Your task to perform on an android device: refresh tabs in the chrome app Image 0: 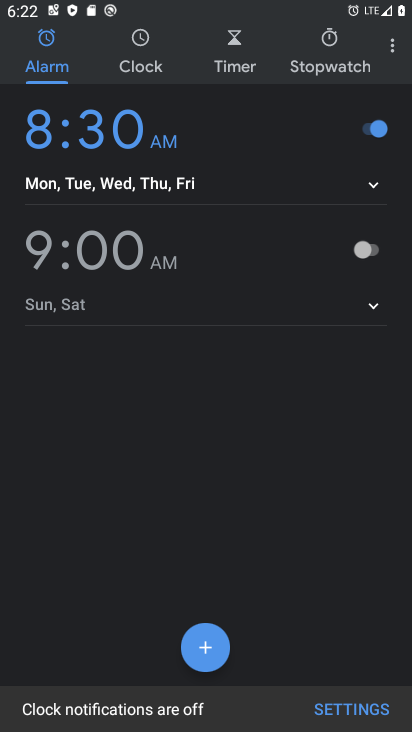
Step 0: press home button
Your task to perform on an android device: refresh tabs in the chrome app Image 1: 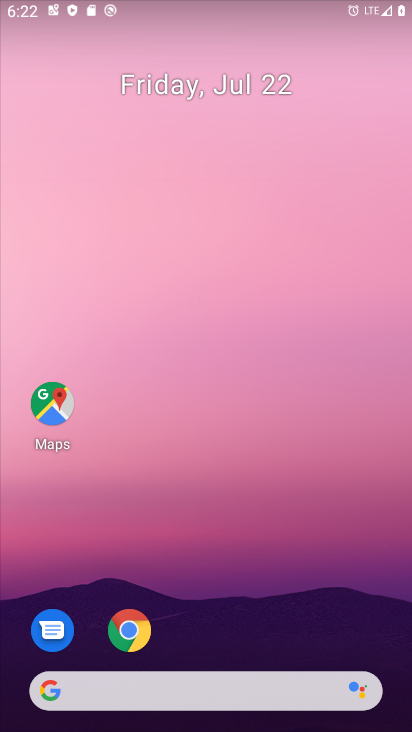
Step 1: drag from (268, 628) to (244, 0)
Your task to perform on an android device: refresh tabs in the chrome app Image 2: 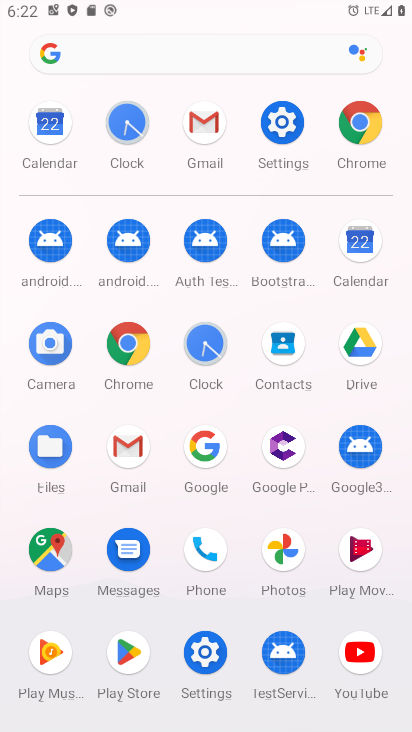
Step 2: click (134, 353)
Your task to perform on an android device: refresh tabs in the chrome app Image 3: 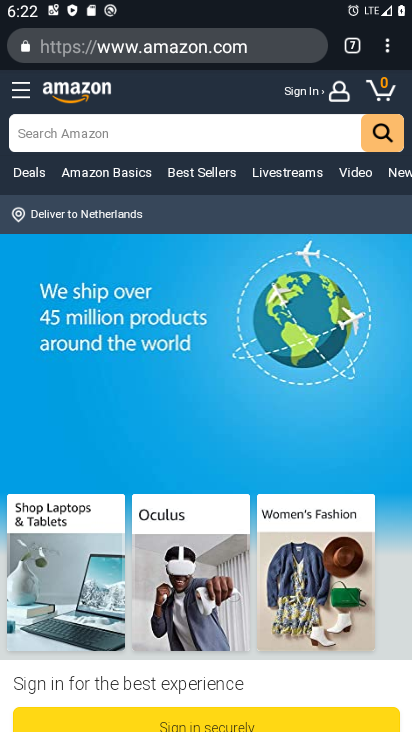
Step 3: click (386, 47)
Your task to perform on an android device: refresh tabs in the chrome app Image 4: 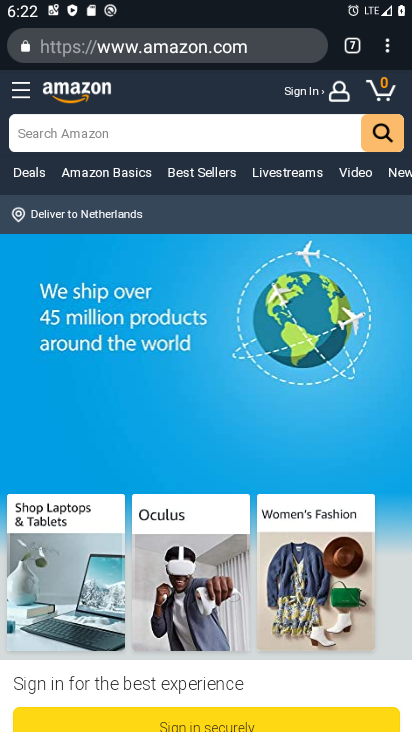
Step 4: task complete